Your task to perform on an android device: turn on showing notifications on the lock screen Image 0: 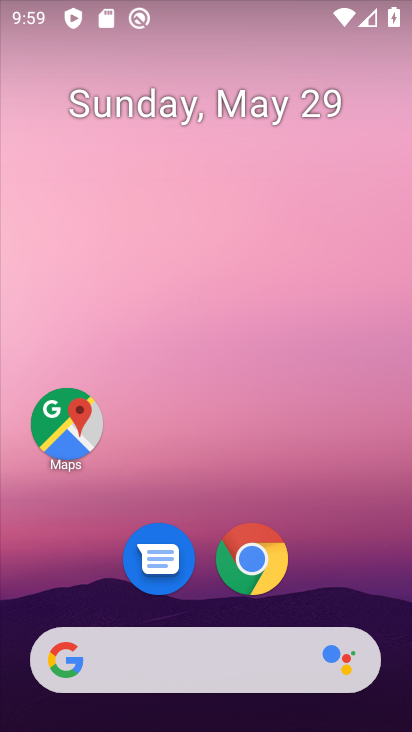
Step 0: drag from (208, 612) to (321, 0)
Your task to perform on an android device: turn on showing notifications on the lock screen Image 1: 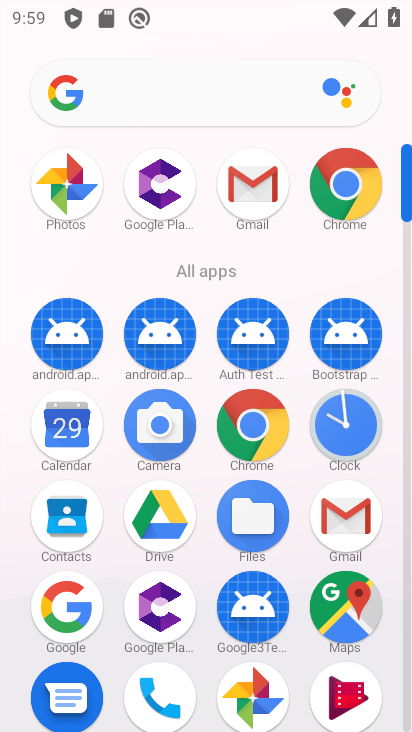
Step 1: drag from (196, 588) to (280, 73)
Your task to perform on an android device: turn on showing notifications on the lock screen Image 2: 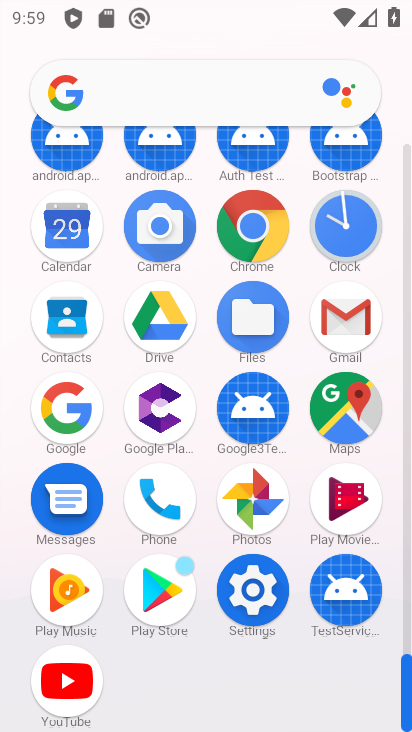
Step 2: click (238, 597)
Your task to perform on an android device: turn on showing notifications on the lock screen Image 3: 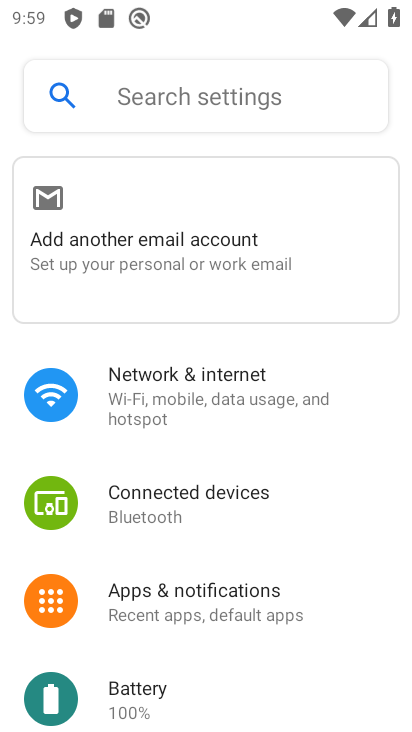
Step 3: drag from (126, 389) to (104, 652)
Your task to perform on an android device: turn on showing notifications on the lock screen Image 4: 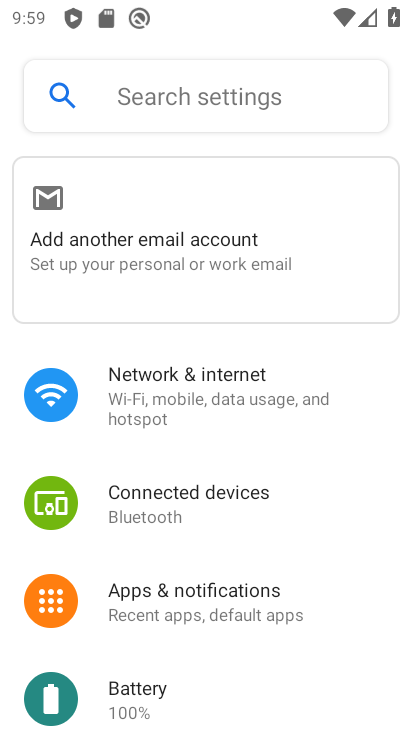
Step 4: click (157, 603)
Your task to perform on an android device: turn on showing notifications on the lock screen Image 5: 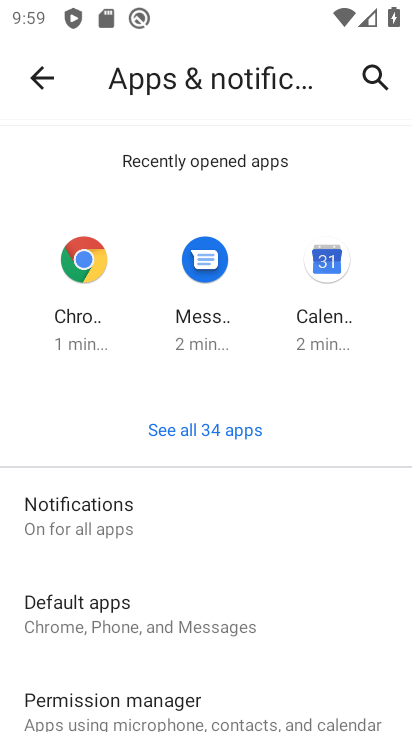
Step 5: click (109, 507)
Your task to perform on an android device: turn on showing notifications on the lock screen Image 6: 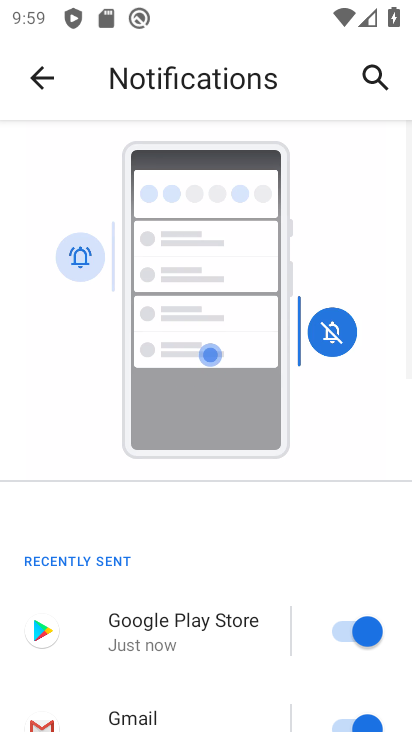
Step 6: drag from (264, 639) to (348, 142)
Your task to perform on an android device: turn on showing notifications on the lock screen Image 7: 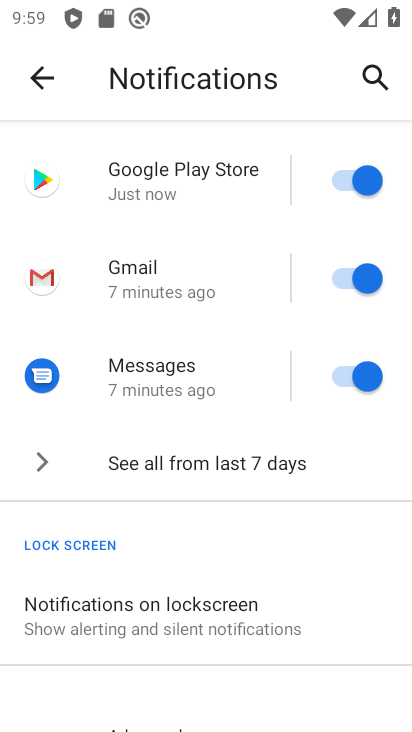
Step 7: click (56, 627)
Your task to perform on an android device: turn on showing notifications on the lock screen Image 8: 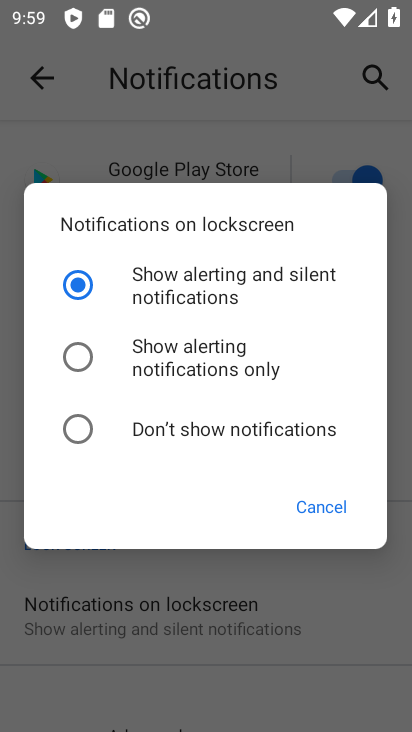
Step 8: click (75, 437)
Your task to perform on an android device: turn on showing notifications on the lock screen Image 9: 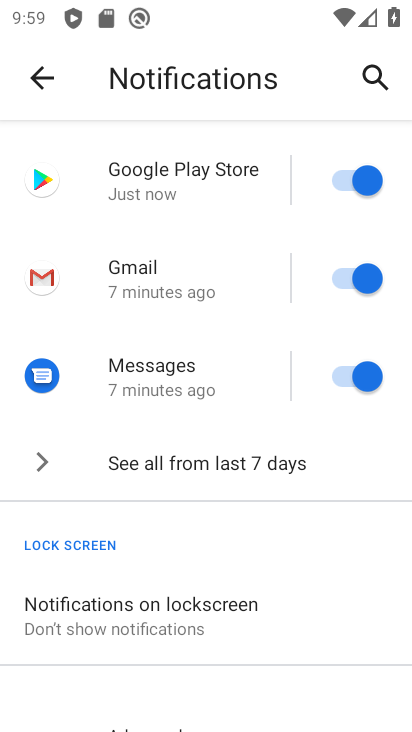
Step 9: task complete